Your task to perform on an android device: Go to Amazon Image 0: 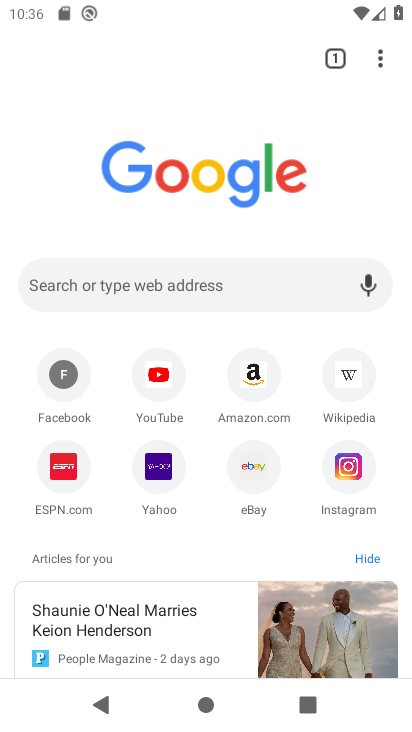
Step 0: click (254, 385)
Your task to perform on an android device: Go to Amazon Image 1: 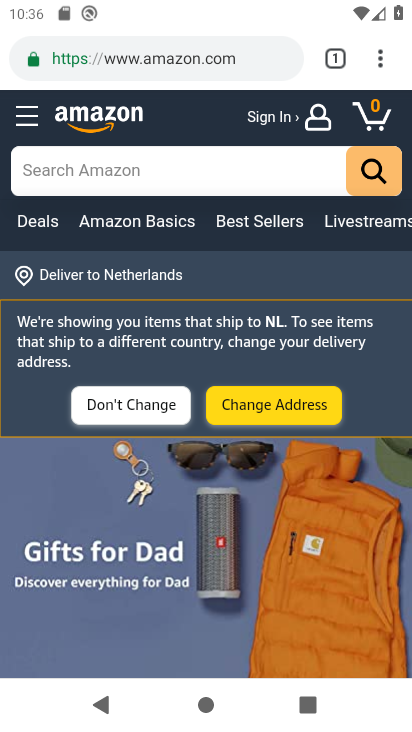
Step 1: task complete